Your task to perform on an android device: see creations saved in the google photos Image 0: 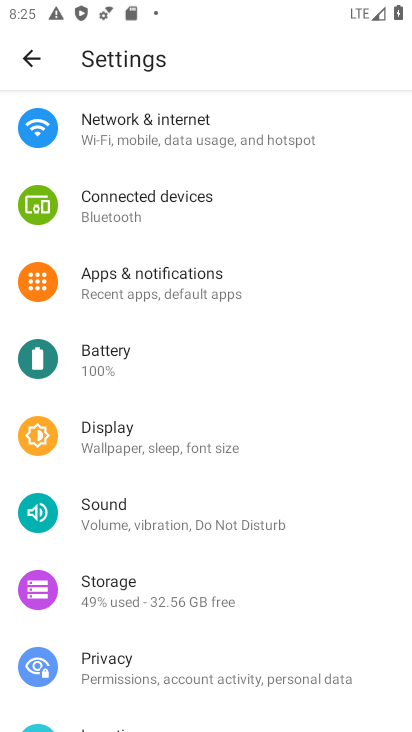
Step 0: press home button
Your task to perform on an android device: see creations saved in the google photos Image 1: 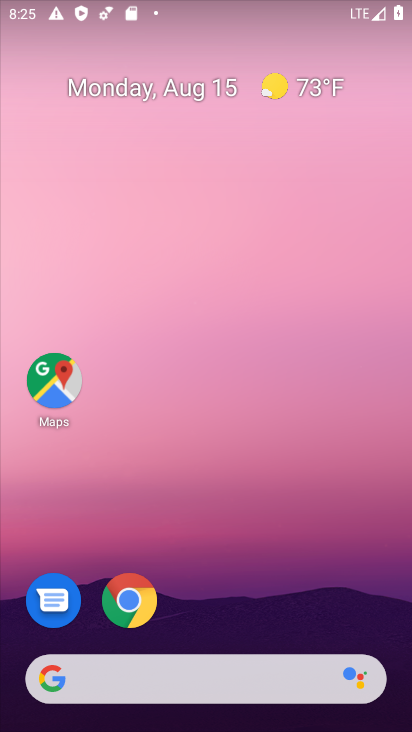
Step 1: drag from (264, 636) to (263, 189)
Your task to perform on an android device: see creations saved in the google photos Image 2: 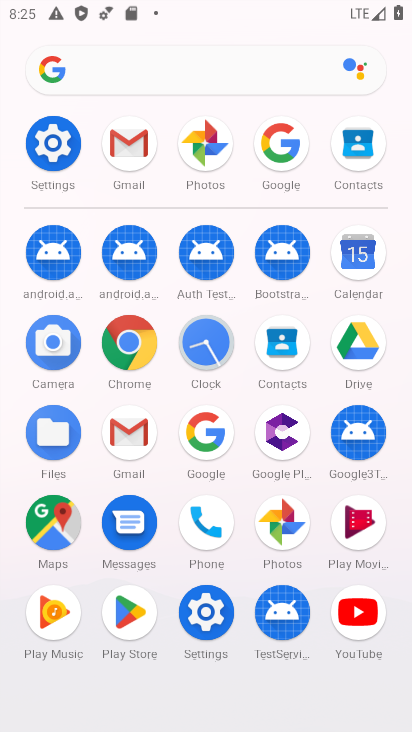
Step 2: click (287, 518)
Your task to perform on an android device: see creations saved in the google photos Image 3: 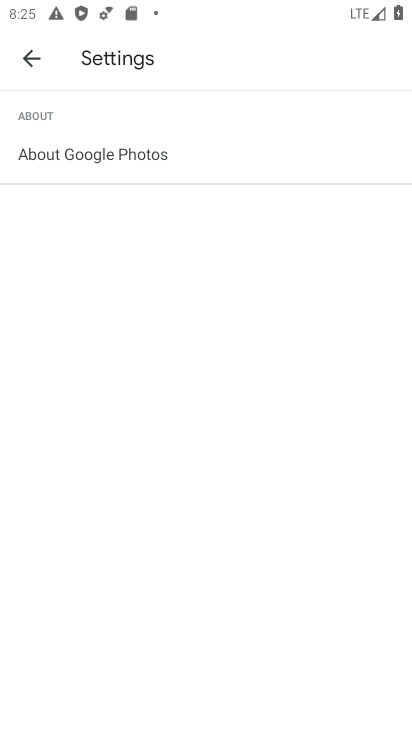
Step 3: click (33, 56)
Your task to perform on an android device: see creations saved in the google photos Image 4: 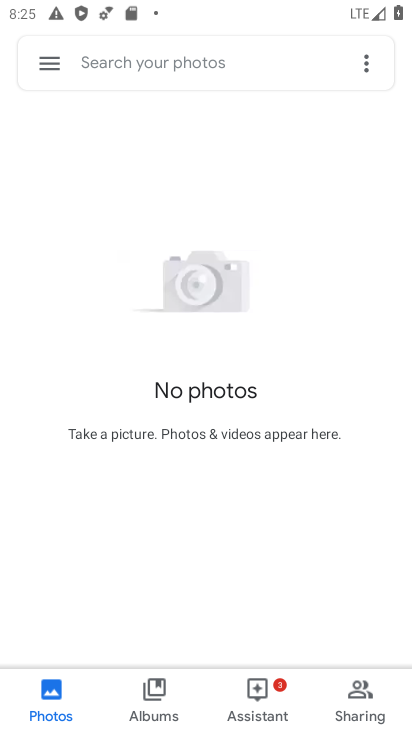
Step 4: click (123, 66)
Your task to perform on an android device: see creations saved in the google photos Image 5: 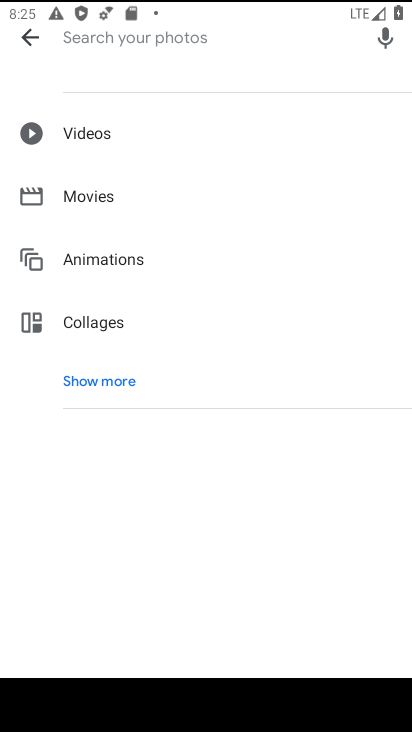
Step 5: click (114, 371)
Your task to perform on an android device: see creations saved in the google photos Image 6: 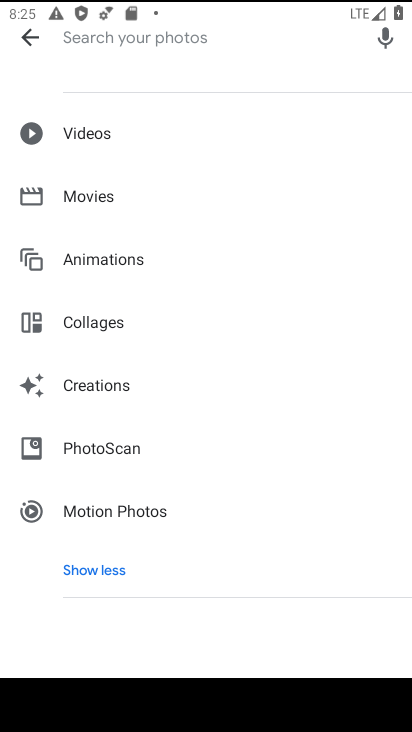
Step 6: click (109, 387)
Your task to perform on an android device: see creations saved in the google photos Image 7: 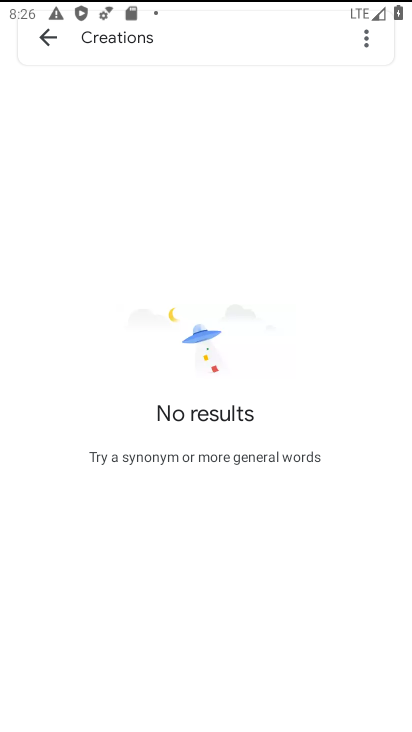
Step 7: task complete